Your task to perform on an android device: change alarm snooze length Image 0: 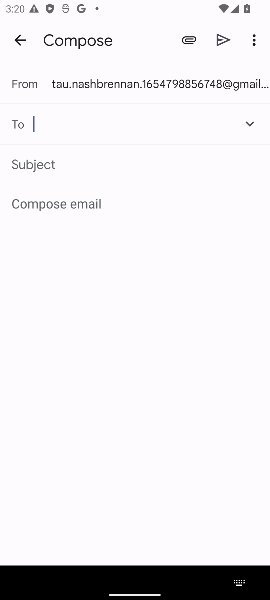
Step 0: press back button
Your task to perform on an android device: change alarm snooze length Image 1: 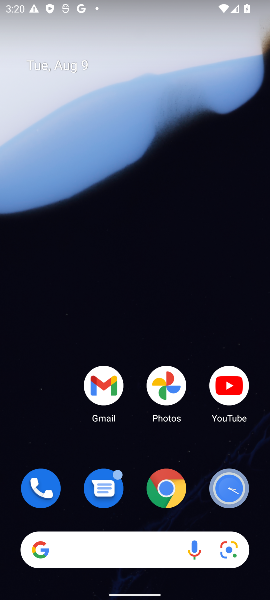
Step 1: drag from (197, 454) to (164, 90)
Your task to perform on an android device: change alarm snooze length Image 2: 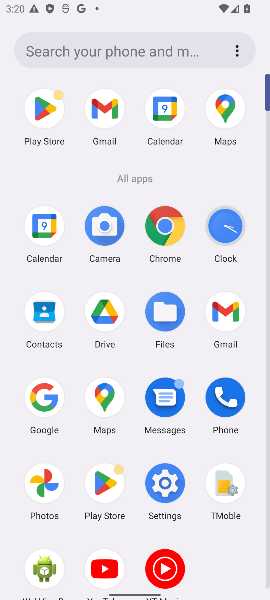
Step 2: click (227, 238)
Your task to perform on an android device: change alarm snooze length Image 3: 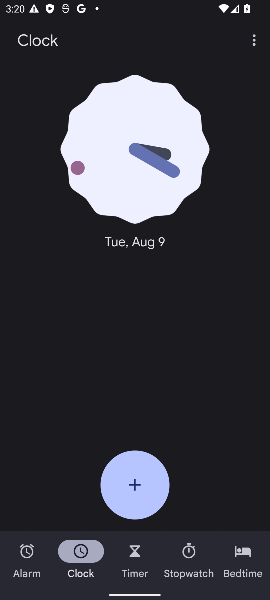
Step 3: click (252, 50)
Your task to perform on an android device: change alarm snooze length Image 4: 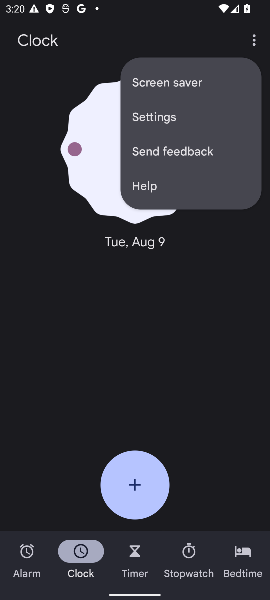
Step 4: click (206, 111)
Your task to perform on an android device: change alarm snooze length Image 5: 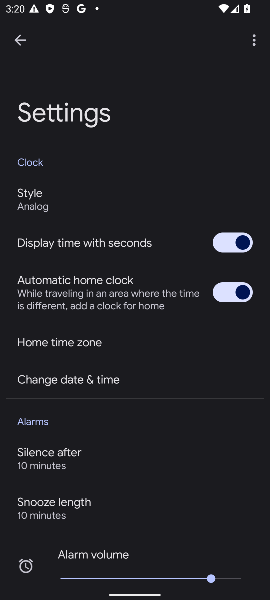
Step 5: click (110, 510)
Your task to perform on an android device: change alarm snooze length Image 6: 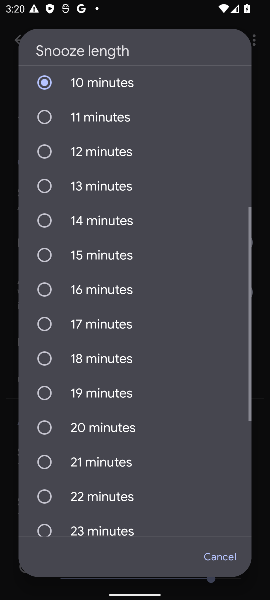
Step 6: click (110, 510)
Your task to perform on an android device: change alarm snooze length Image 7: 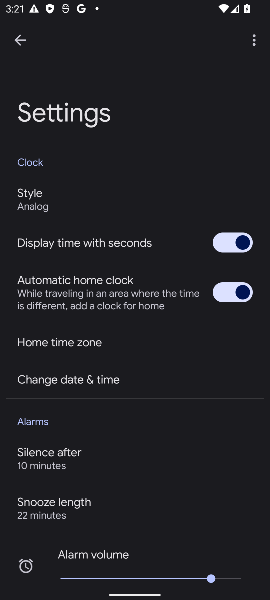
Step 7: task complete